Your task to perform on an android device: search for starred emails in the gmail app Image 0: 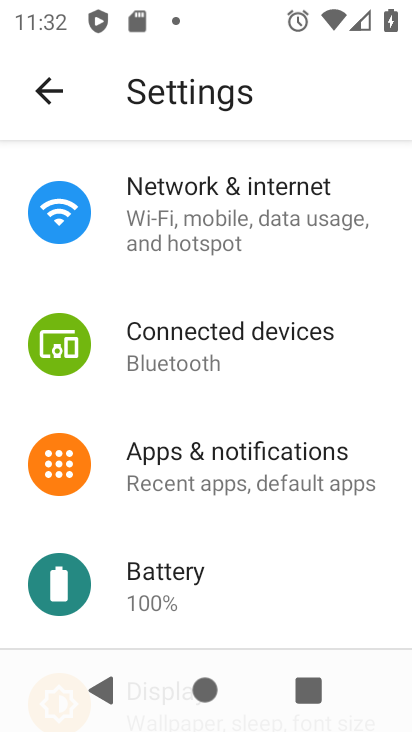
Step 0: press home button
Your task to perform on an android device: search for starred emails in the gmail app Image 1: 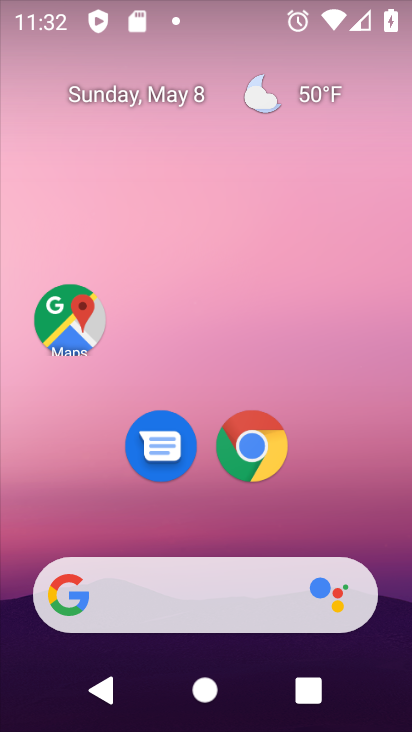
Step 1: drag from (324, 515) to (399, 1)
Your task to perform on an android device: search for starred emails in the gmail app Image 2: 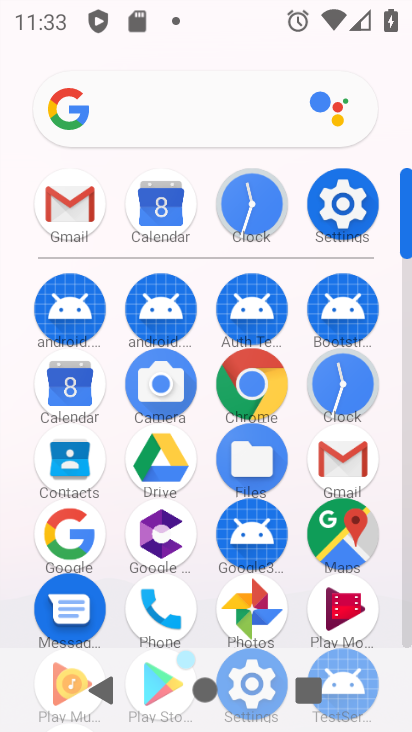
Step 2: click (339, 467)
Your task to perform on an android device: search for starred emails in the gmail app Image 3: 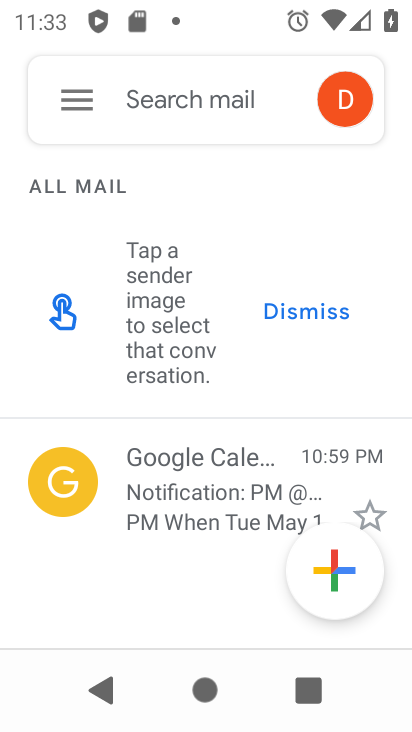
Step 3: click (80, 113)
Your task to perform on an android device: search for starred emails in the gmail app Image 4: 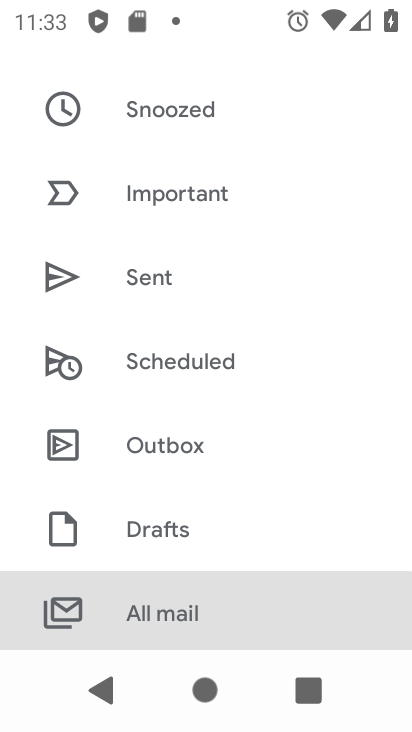
Step 4: drag from (207, 124) to (255, 301)
Your task to perform on an android device: search for starred emails in the gmail app Image 5: 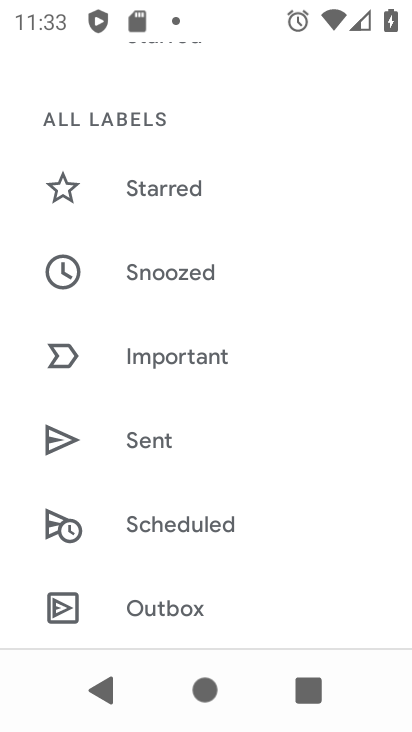
Step 5: click (157, 181)
Your task to perform on an android device: search for starred emails in the gmail app Image 6: 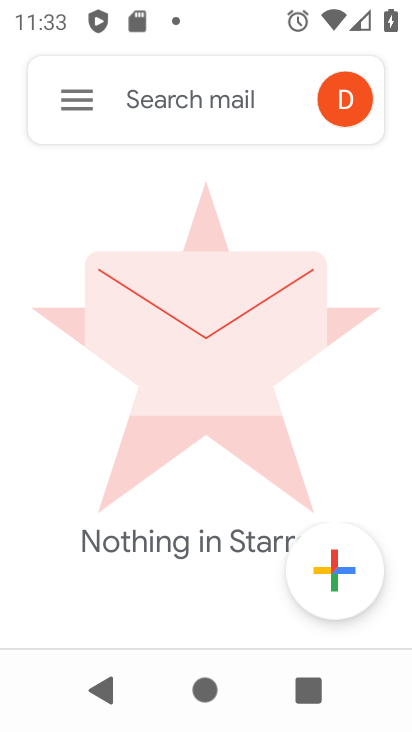
Step 6: task complete